Your task to perform on an android device: Empty the shopping cart on ebay. Add "duracell triple a" to the cart on ebay, then select checkout. Image 0: 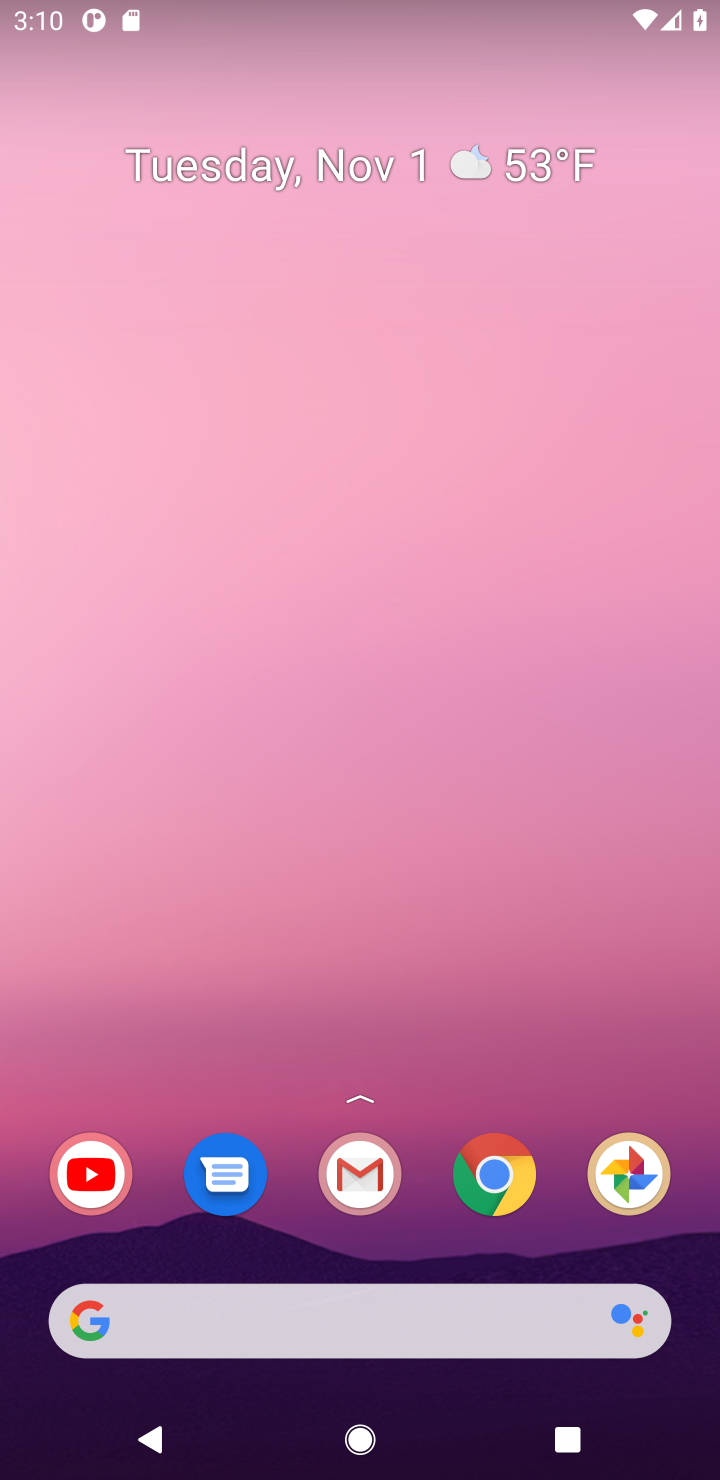
Step 0: press home button
Your task to perform on an android device: Empty the shopping cart on ebay. Add "duracell triple a" to the cart on ebay, then select checkout. Image 1: 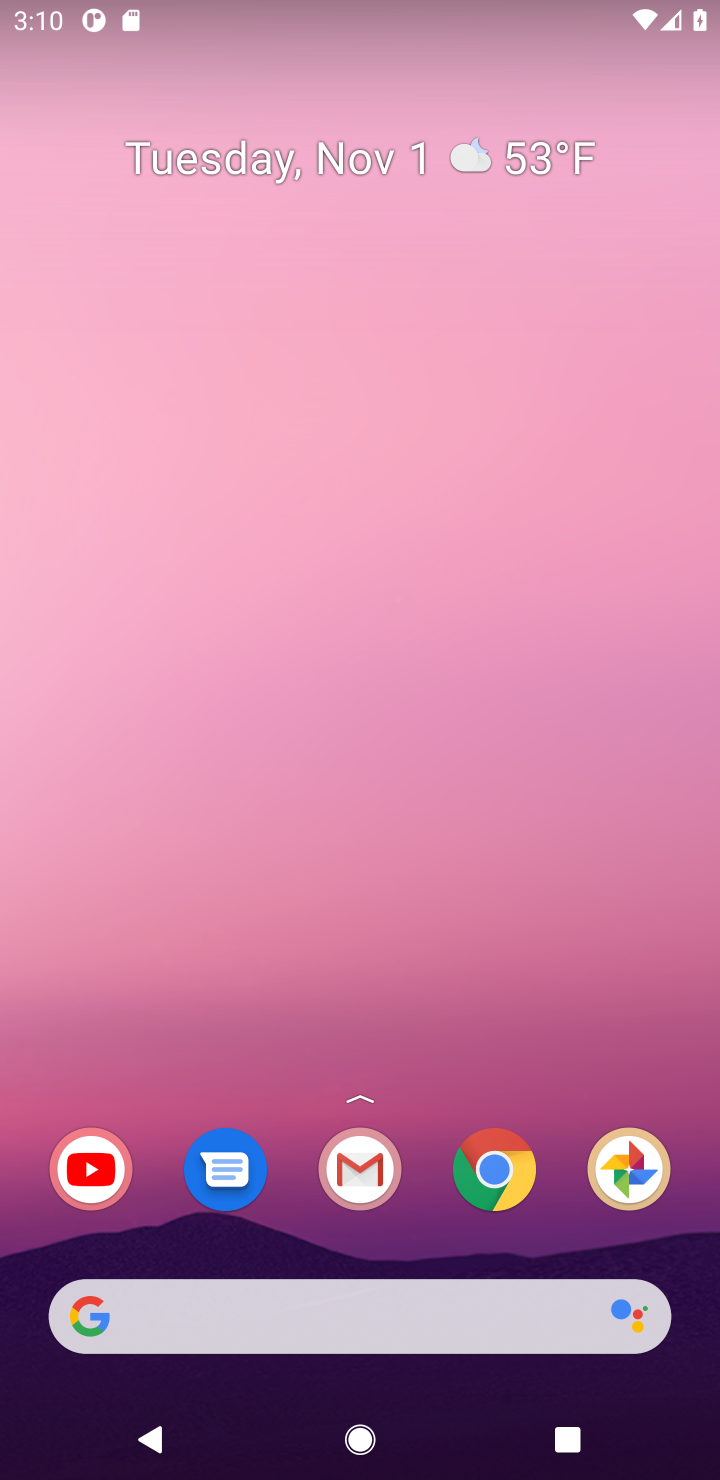
Step 1: drag from (408, 1073) to (408, 111)
Your task to perform on an android device: Empty the shopping cart on ebay. Add "duracell triple a" to the cart on ebay, then select checkout. Image 2: 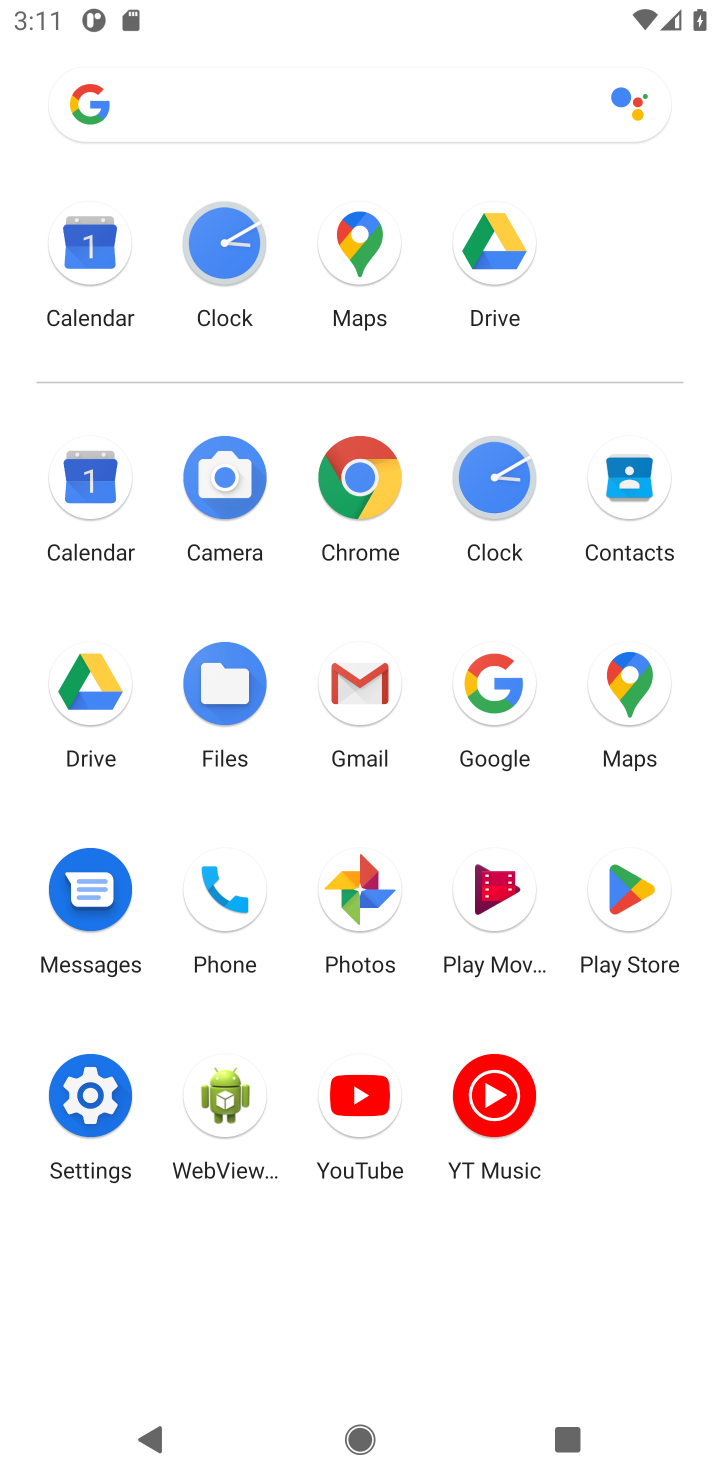
Step 2: click (357, 474)
Your task to perform on an android device: Empty the shopping cart on ebay. Add "duracell triple a" to the cart on ebay, then select checkout. Image 3: 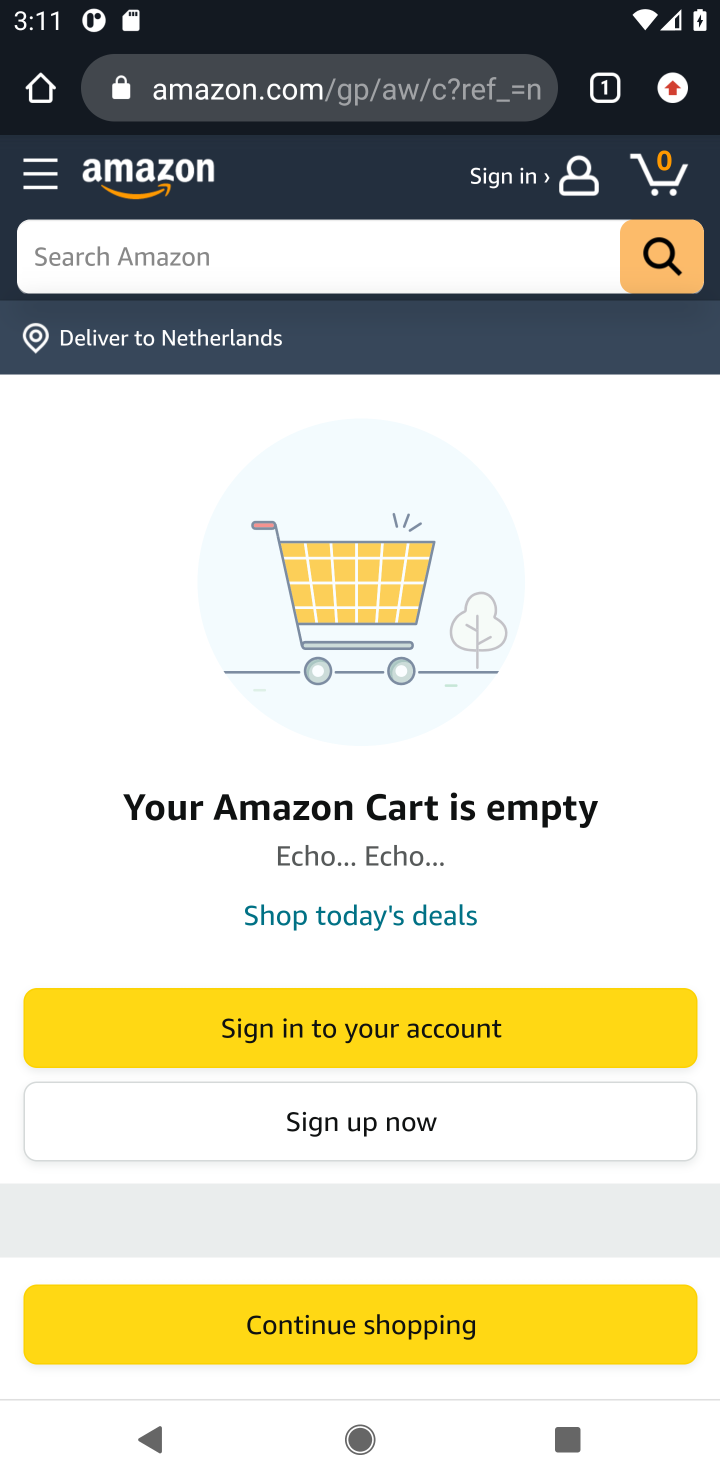
Step 3: click (242, 85)
Your task to perform on an android device: Empty the shopping cart on ebay. Add "duracell triple a" to the cart on ebay, then select checkout. Image 4: 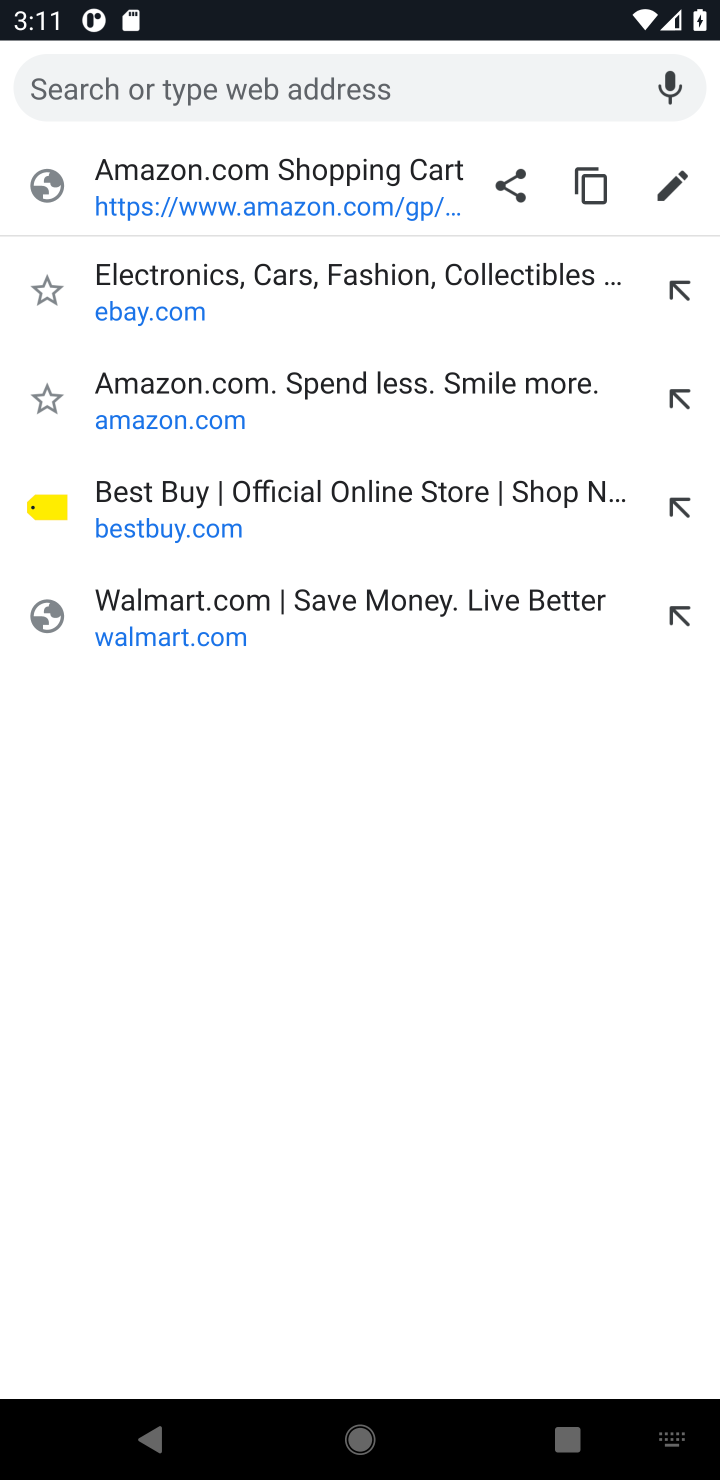
Step 4: type "ebay"
Your task to perform on an android device: Empty the shopping cart on ebay. Add "duracell triple a" to the cart on ebay, then select checkout. Image 5: 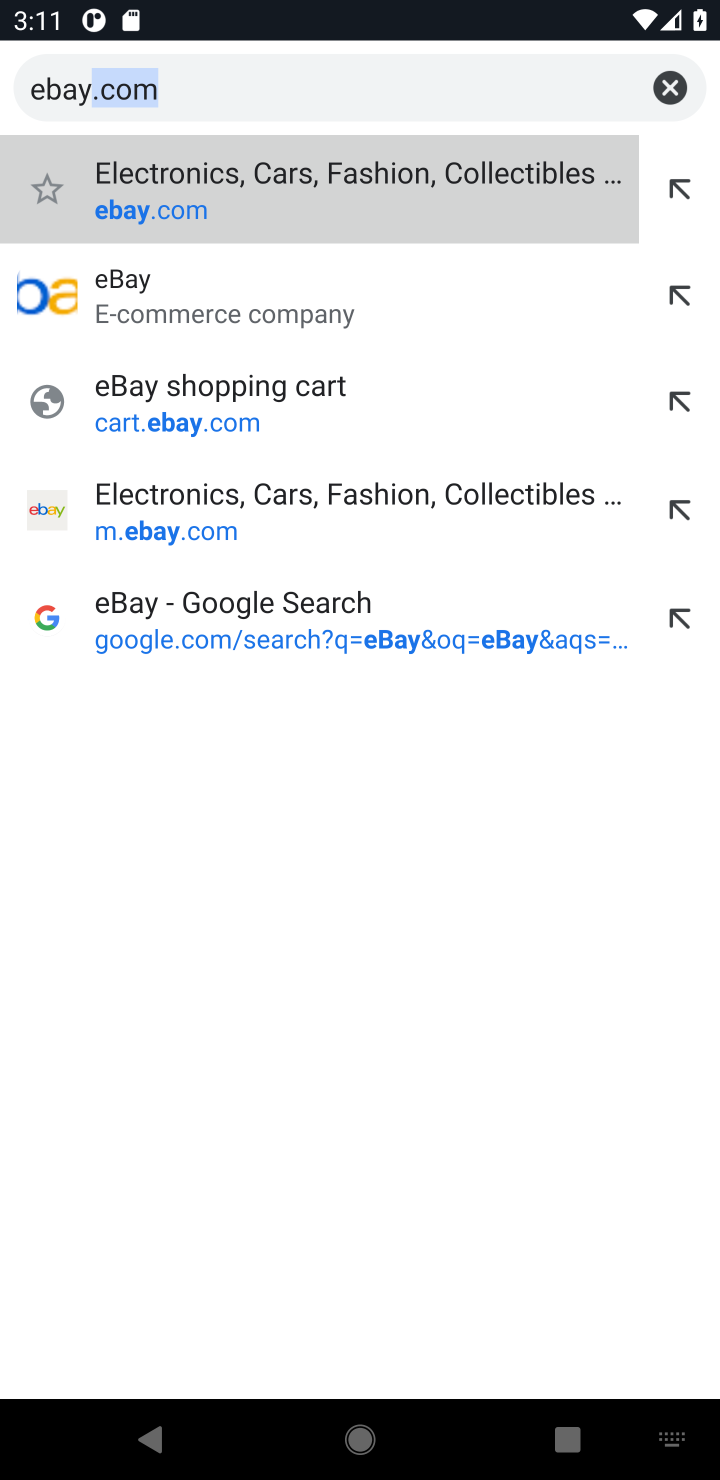
Step 5: click (187, 203)
Your task to perform on an android device: Empty the shopping cart on ebay. Add "duracell triple a" to the cart on ebay, then select checkout. Image 6: 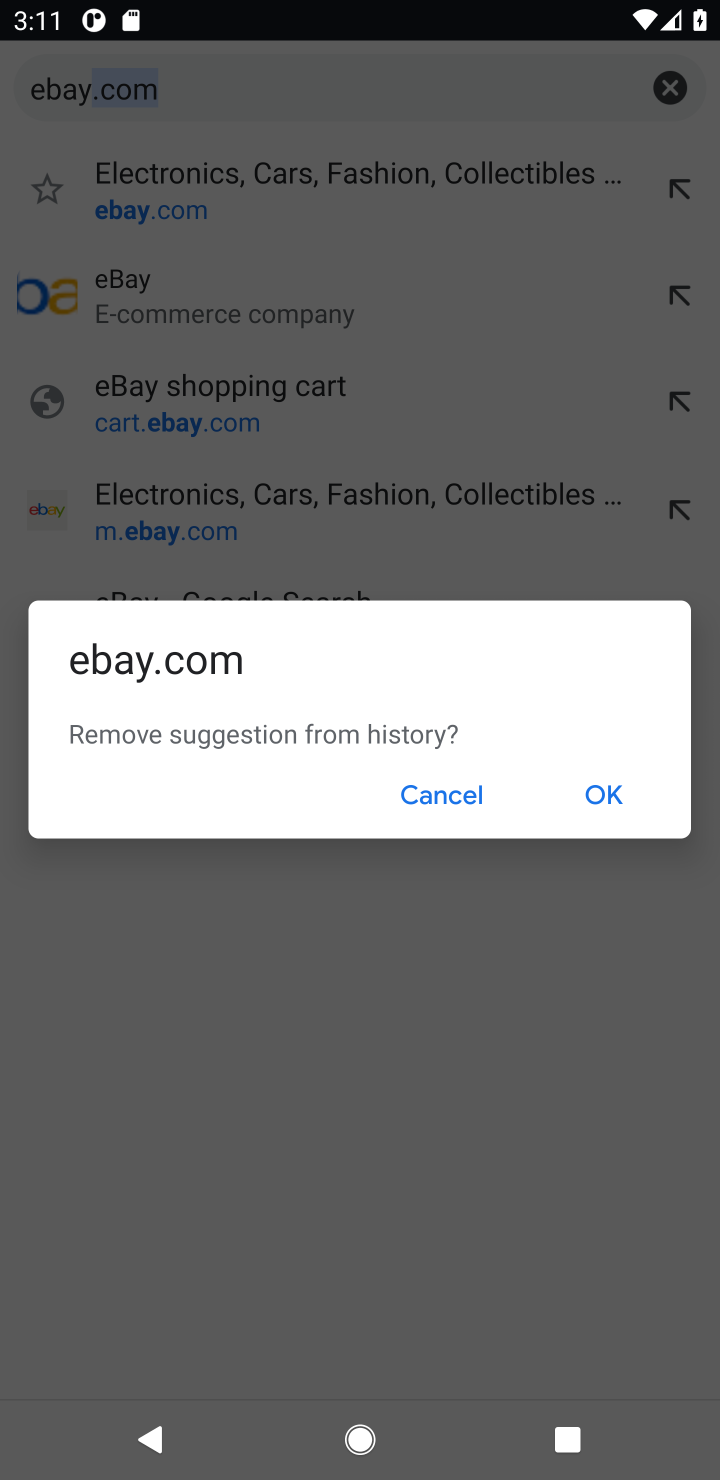
Step 6: click (448, 796)
Your task to perform on an android device: Empty the shopping cart on ebay. Add "duracell triple a" to the cart on ebay, then select checkout. Image 7: 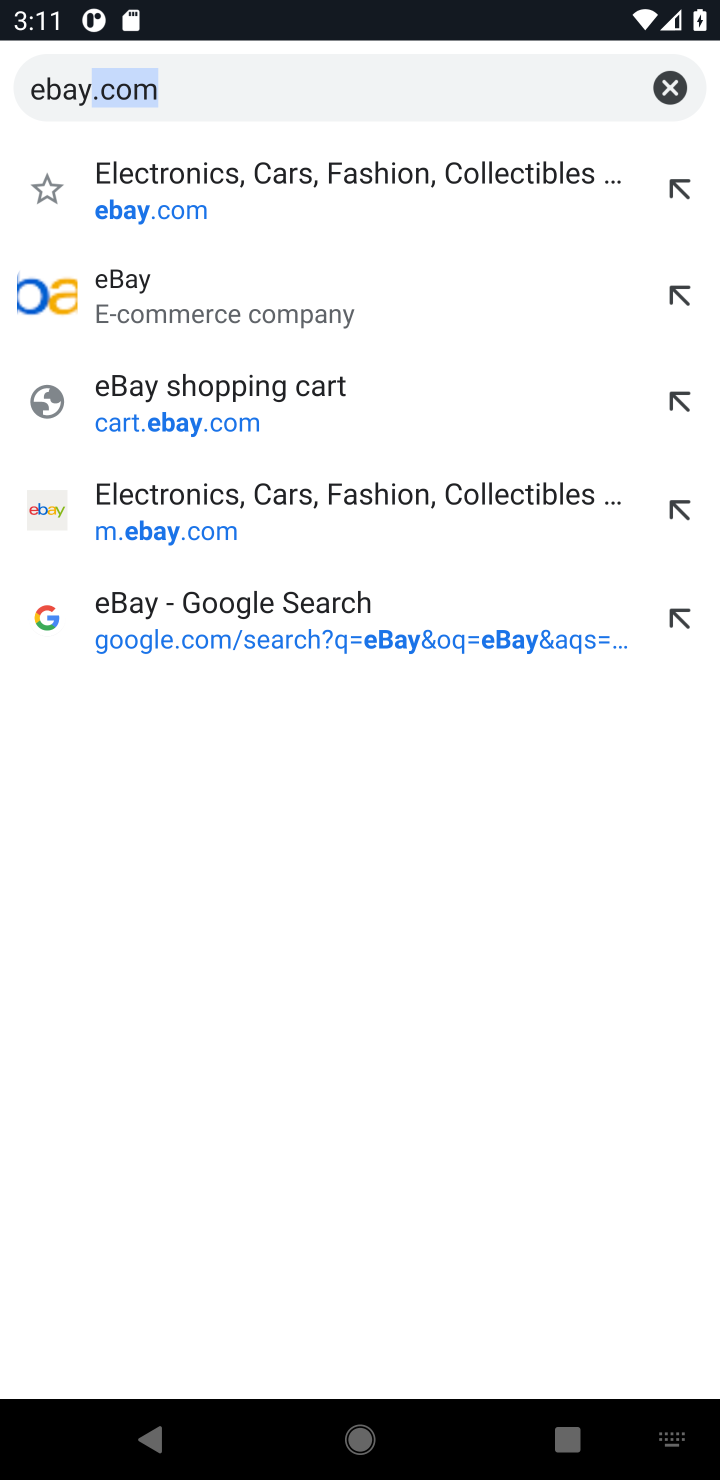
Step 7: click (71, 201)
Your task to perform on an android device: Empty the shopping cart on ebay. Add "duracell triple a" to the cart on ebay, then select checkout. Image 8: 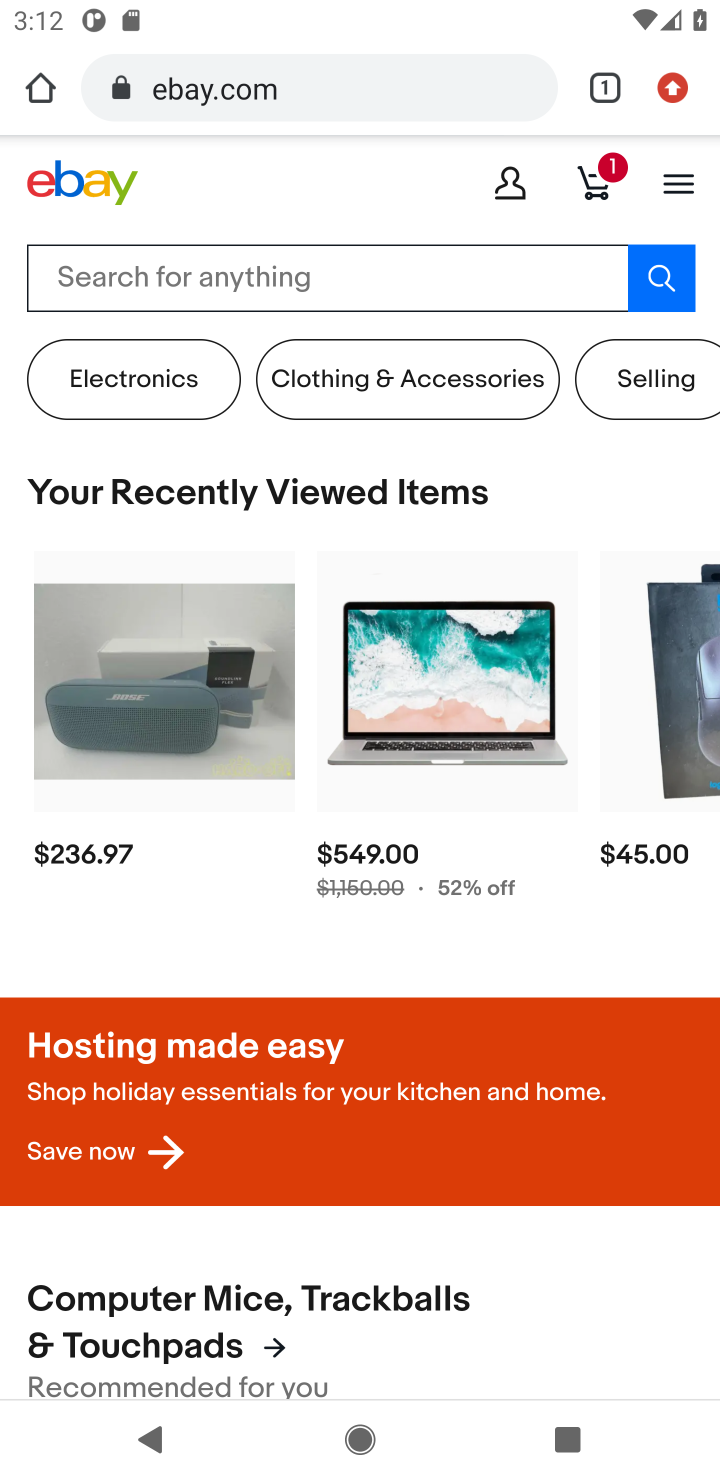
Step 8: click (152, 268)
Your task to perform on an android device: Empty the shopping cart on ebay. Add "duracell triple a" to the cart on ebay, then select checkout. Image 9: 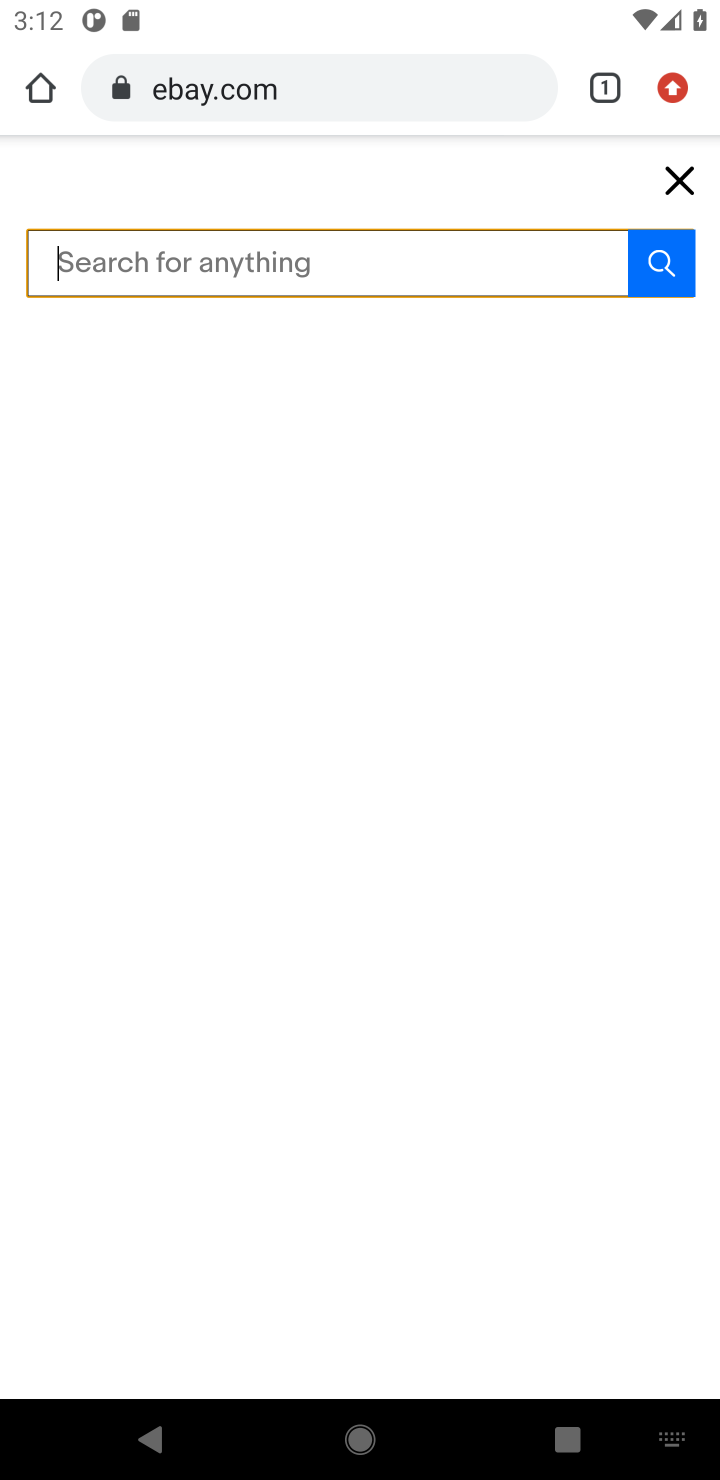
Step 9: type "duracell triple a"
Your task to perform on an android device: Empty the shopping cart on ebay. Add "duracell triple a" to the cart on ebay, then select checkout. Image 10: 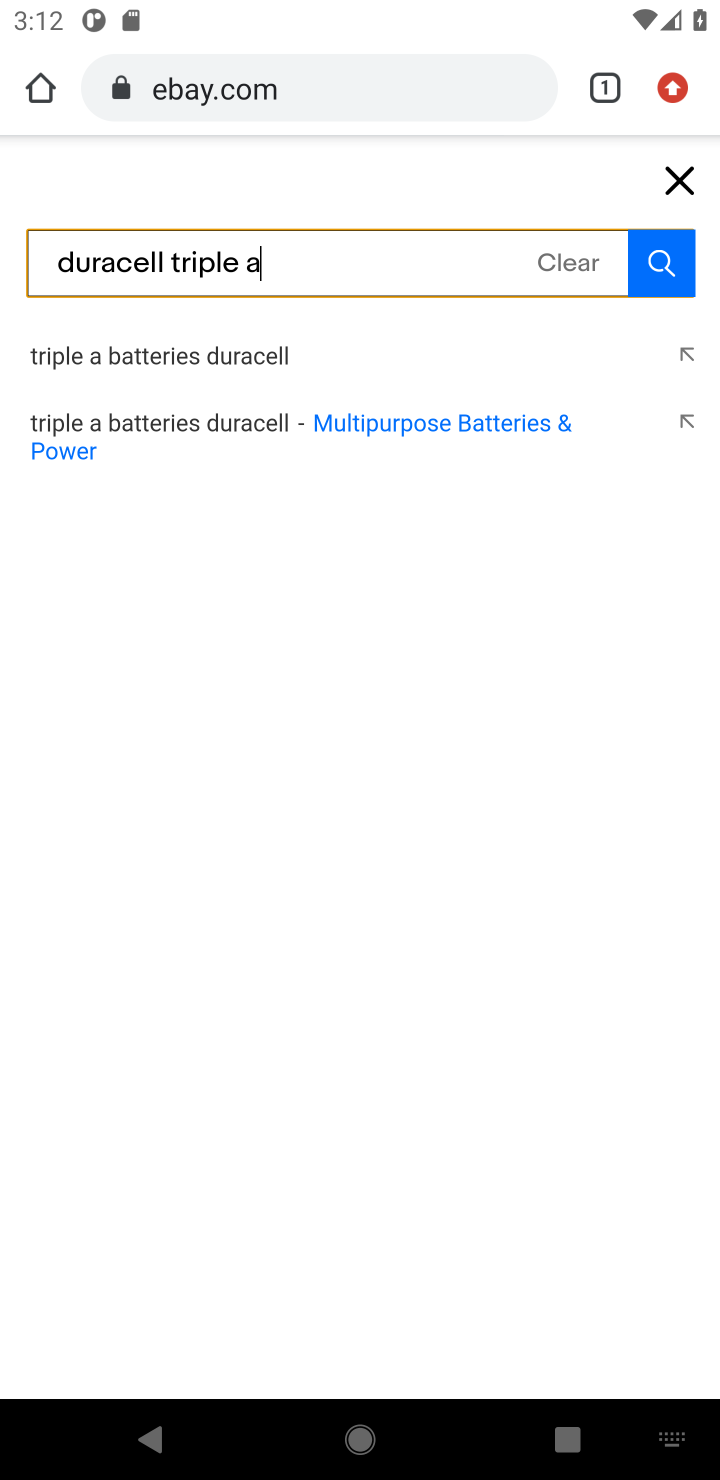
Step 10: type ""
Your task to perform on an android device: Empty the shopping cart on ebay. Add "duracell triple a" to the cart on ebay, then select checkout. Image 11: 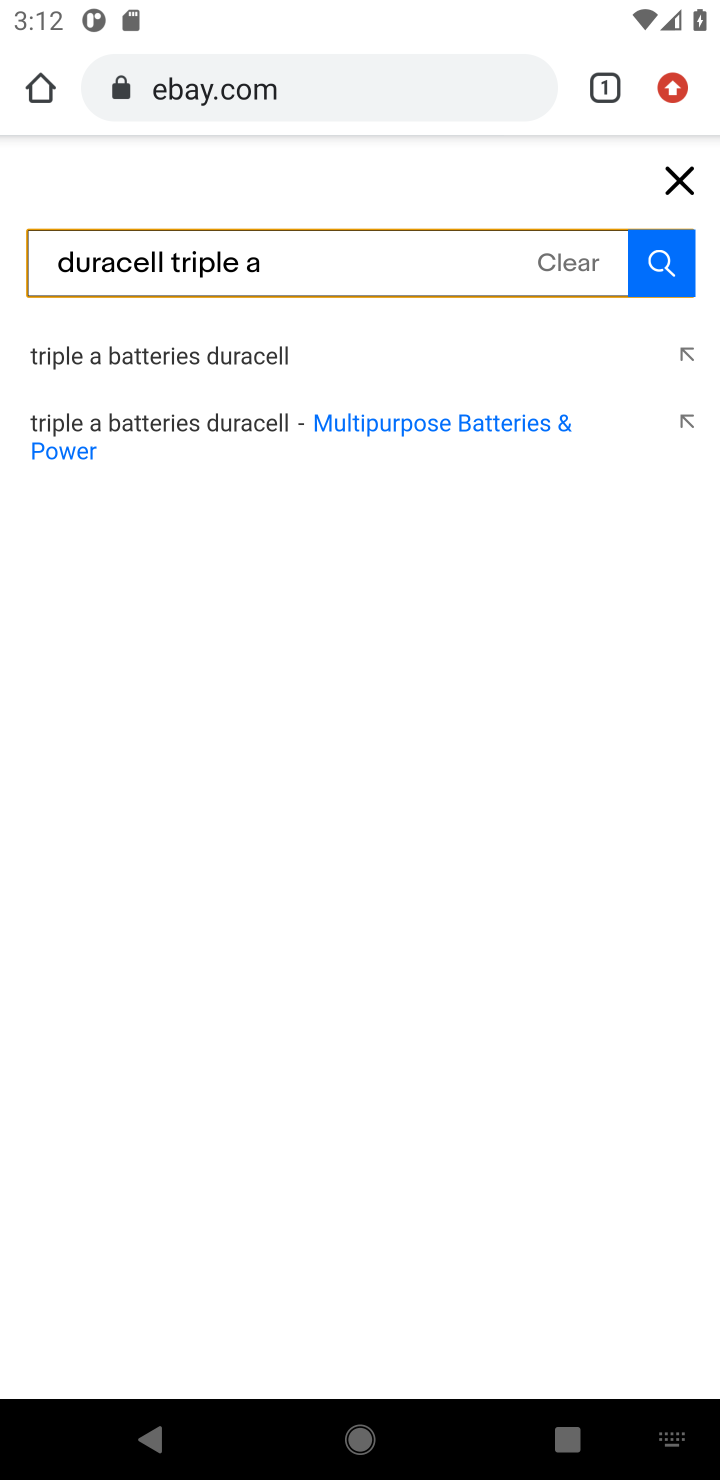
Step 11: click (657, 274)
Your task to perform on an android device: Empty the shopping cart on ebay. Add "duracell triple a" to the cart on ebay, then select checkout. Image 12: 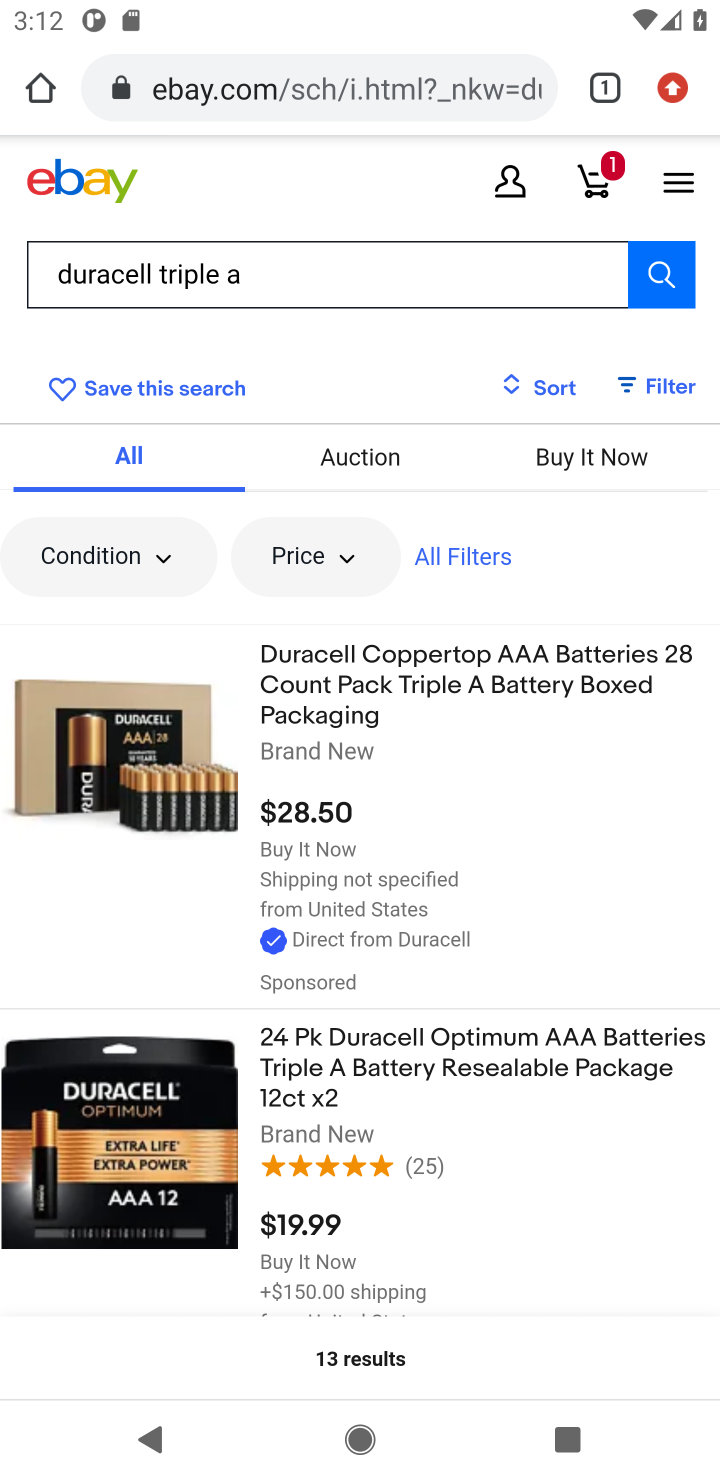
Step 12: click (474, 692)
Your task to perform on an android device: Empty the shopping cart on ebay. Add "duracell triple a" to the cart on ebay, then select checkout. Image 13: 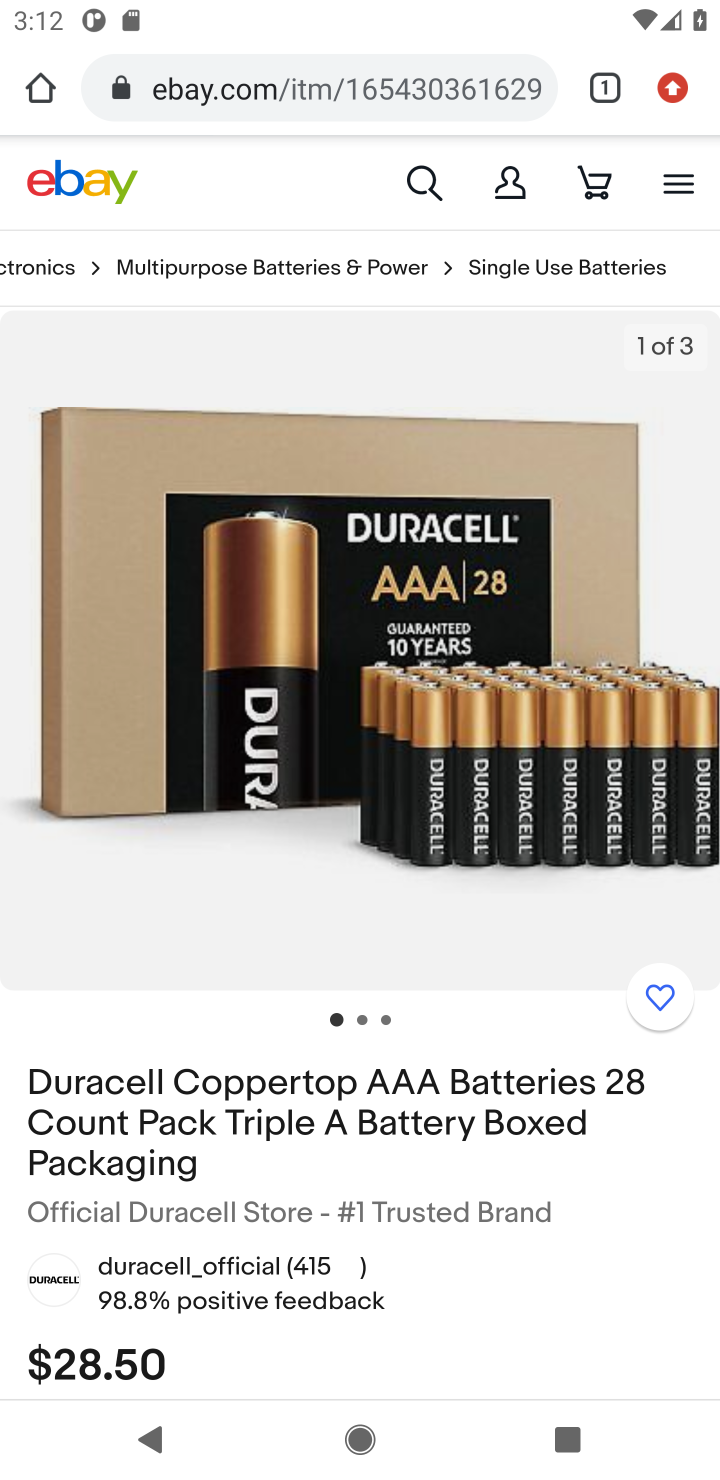
Step 13: drag from (330, 1042) to (439, 290)
Your task to perform on an android device: Empty the shopping cart on ebay. Add "duracell triple a" to the cart on ebay, then select checkout. Image 14: 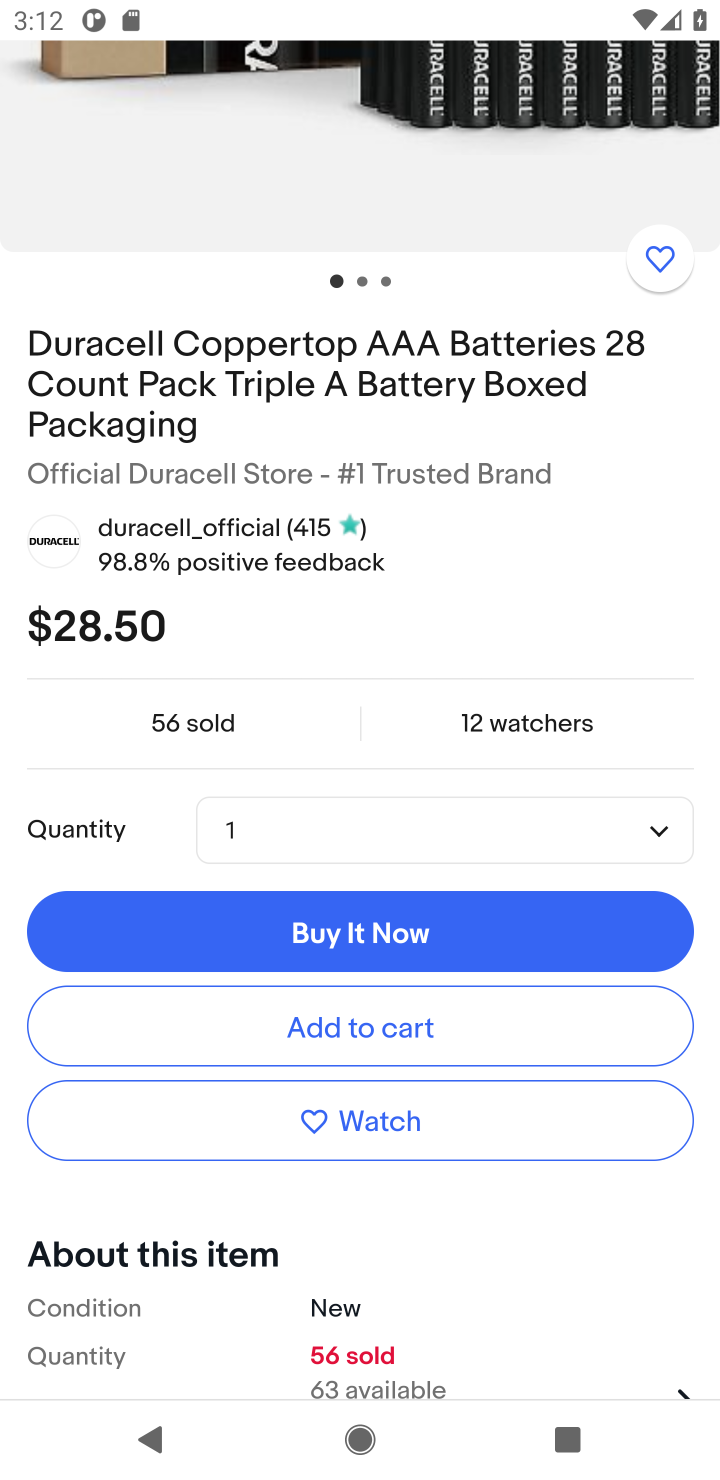
Step 14: click (360, 1021)
Your task to perform on an android device: Empty the shopping cart on ebay. Add "duracell triple a" to the cart on ebay, then select checkout. Image 15: 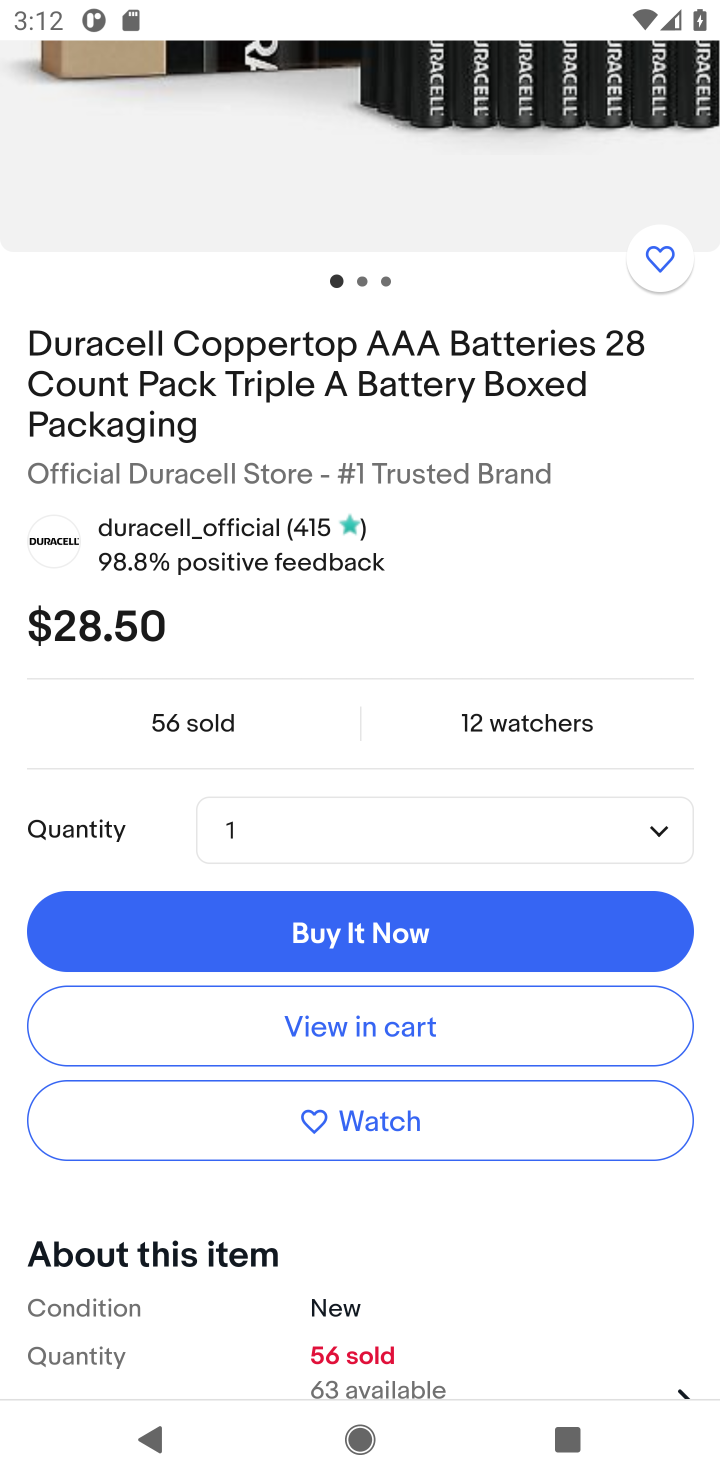
Step 15: click (350, 1020)
Your task to perform on an android device: Empty the shopping cart on ebay. Add "duracell triple a" to the cart on ebay, then select checkout. Image 16: 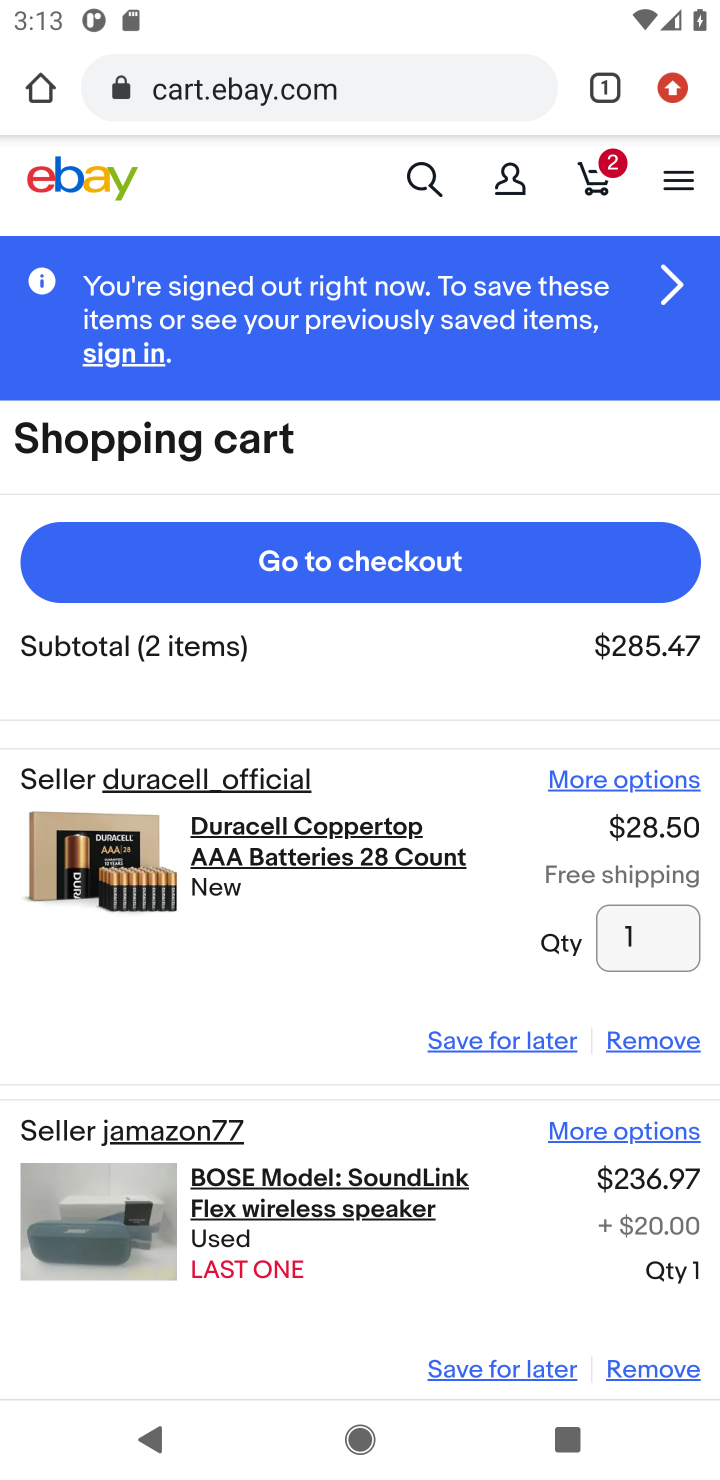
Step 16: click (375, 563)
Your task to perform on an android device: Empty the shopping cart on ebay. Add "duracell triple a" to the cart on ebay, then select checkout. Image 17: 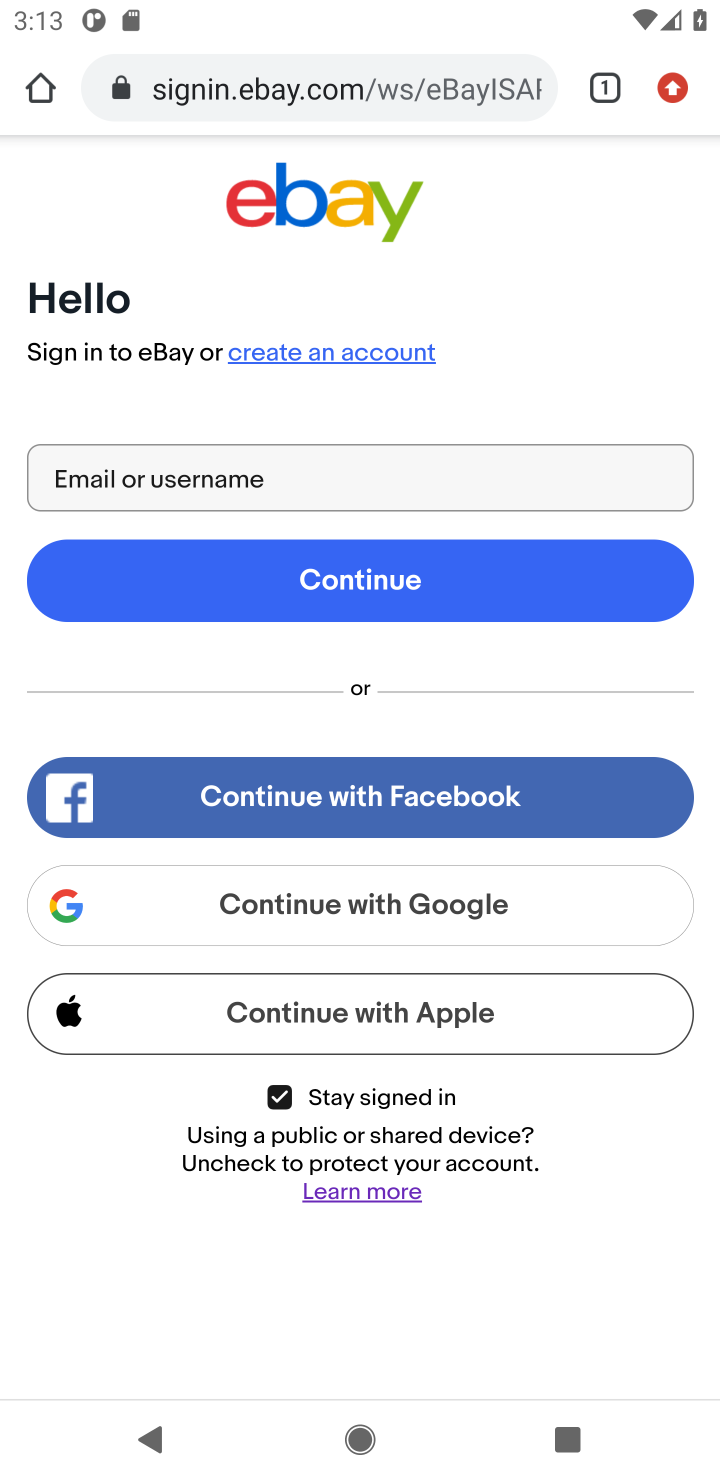
Step 17: task complete